Your task to perform on an android device: Show me the alarms in the clock app Image 0: 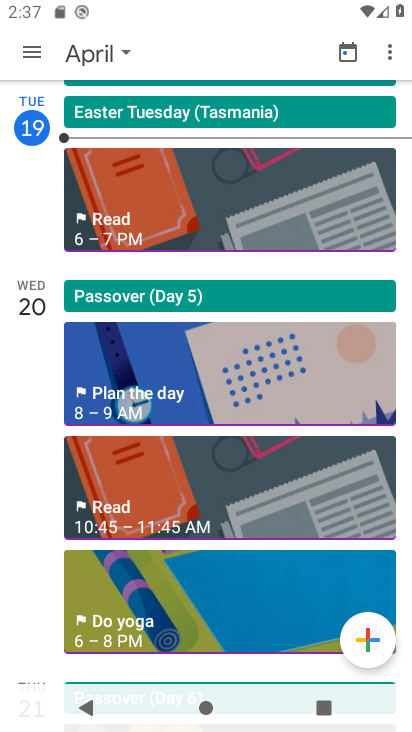
Step 0: press home button
Your task to perform on an android device: Show me the alarms in the clock app Image 1: 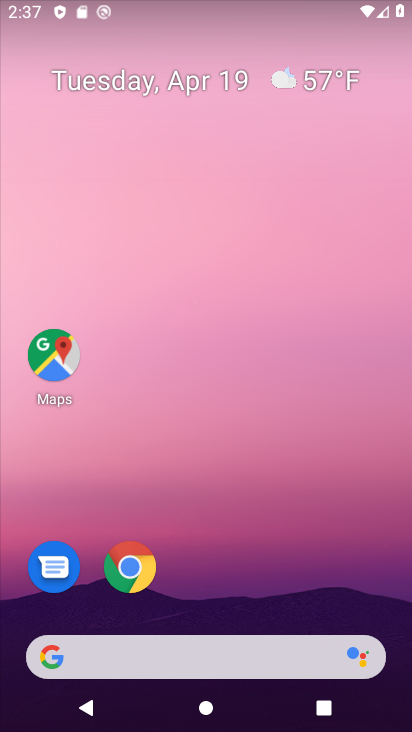
Step 1: drag from (381, 586) to (381, 118)
Your task to perform on an android device: Show me the alarms in the clock app Image 2: 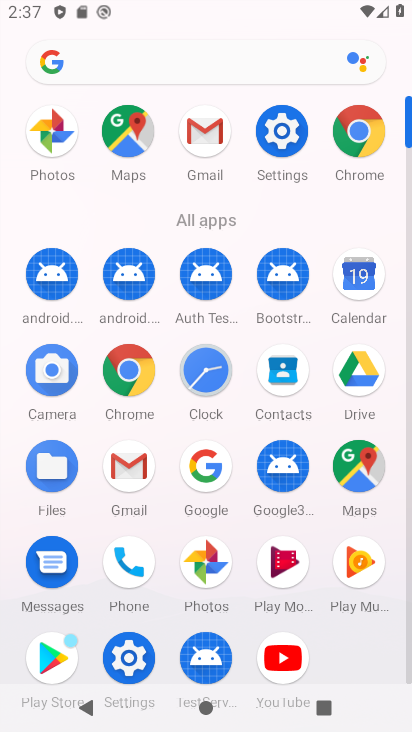
Step 2: click (212, 382)
Your task to perform on an android device: Show me the alarms in the clock app Image 3: 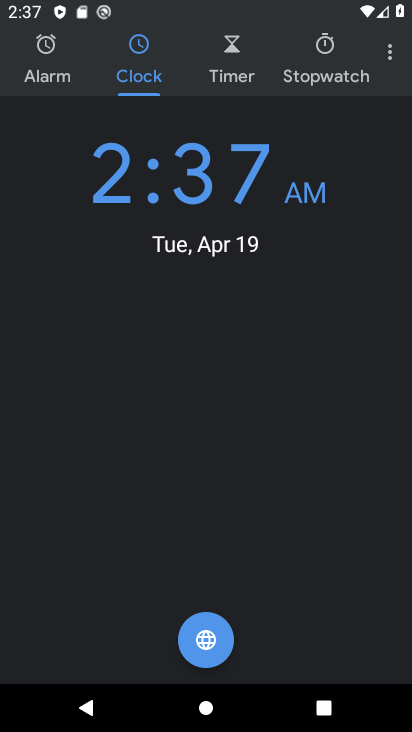
Step 3: click (51, 77)
Your task to perform on an android device: Show me the alarms in the clock app Image 4: 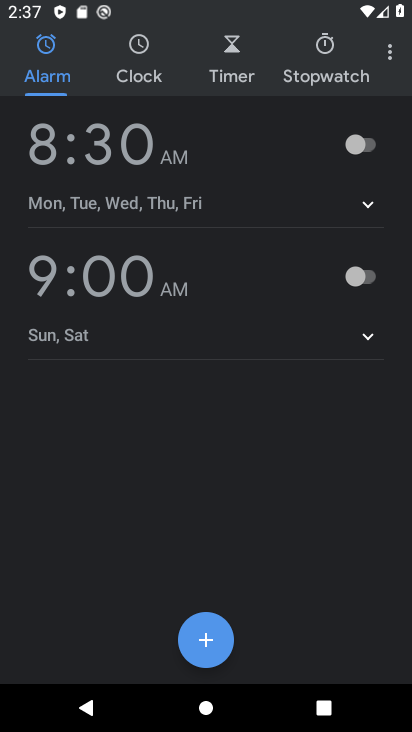
Step 4: task complete